Your task to perform on an android device: Go to Wikipedia Image 0: 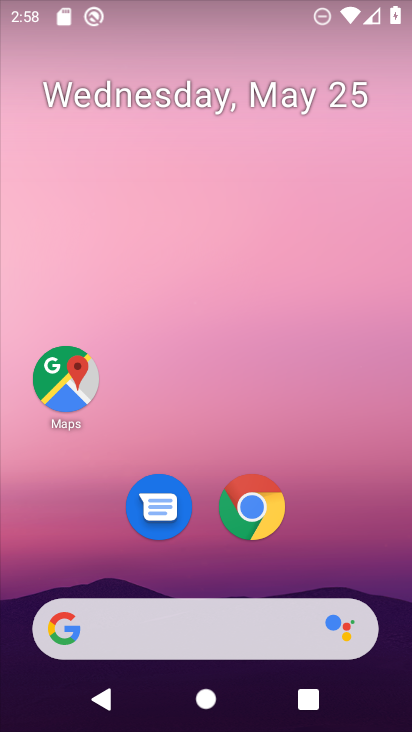
Step 0: click (264, 522)
Your task to perform on an android device: Go to Wikipedia Image 1: 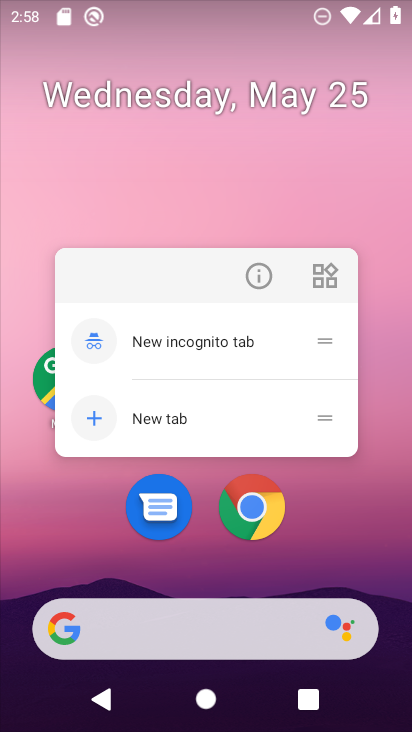
Step 1: click (251, 507)
Your task to perform on an android device: Go to Wikipedia Image 2: 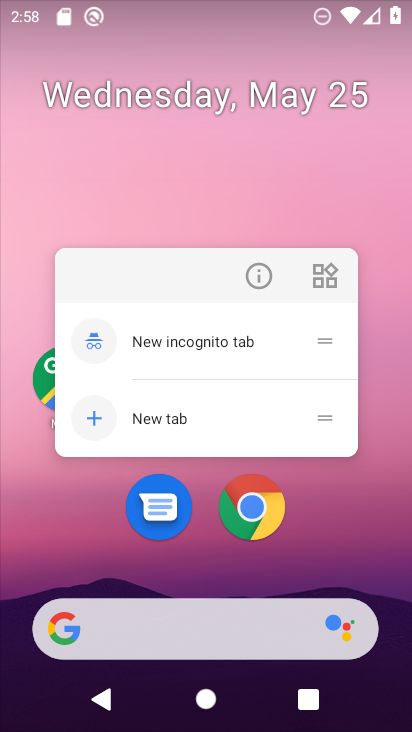
Step 2: click (251, 507)
Your task to perform on an android device: Go to Wikipedia Image 3: 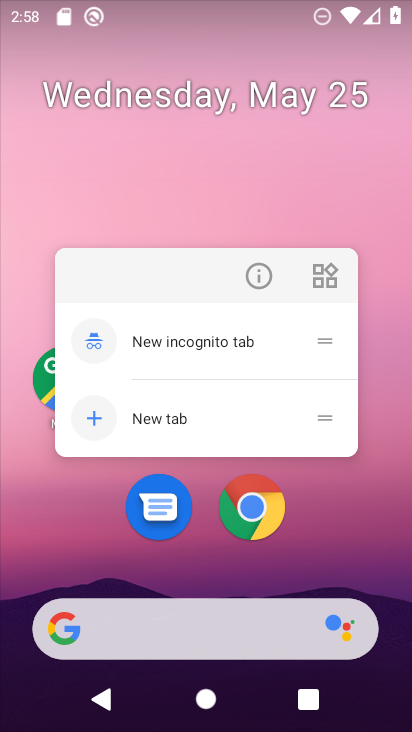
Step 3: click (243, 491)
Your task to perform on an android device: Go to Wikipedia Image 4: 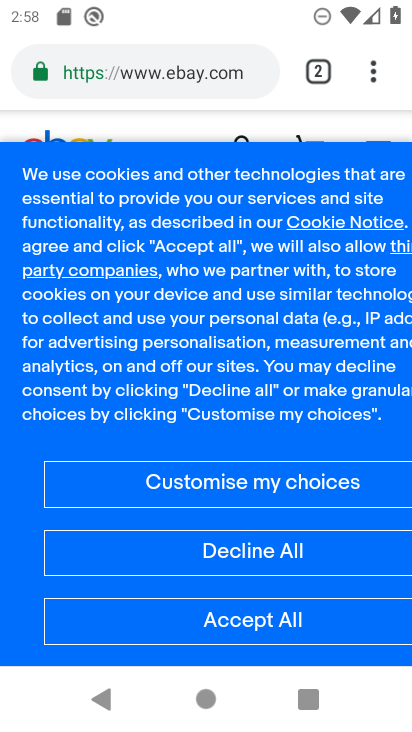
Step 4: click (227, 78)
Your task to perform on an android device: Go to Wikipedia Image 5: 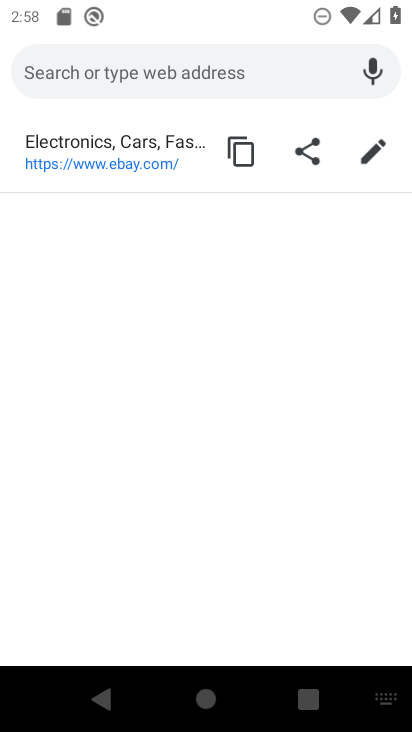
Step 5: type "wikipedia"
Your task to perform on an android device: Go to Wikipedia Image 6: 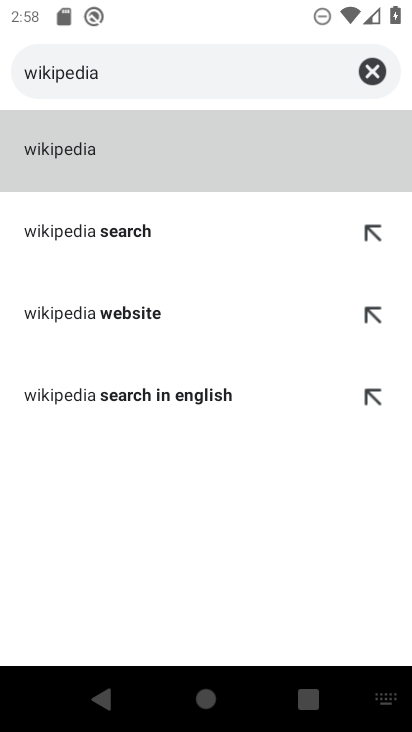
Step 6: click (223, 155)
Your task to perform on an android device: Go to Wikipedia Image 7: 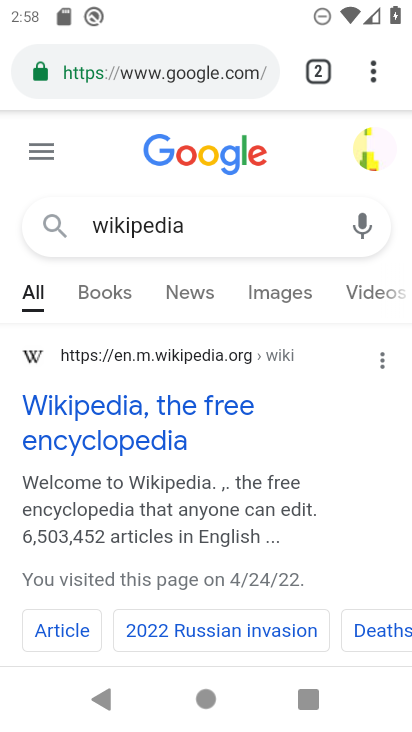
Step 7: click (148, 422)
Your task to perform on an android device: Go to Wikipedia Image 8: 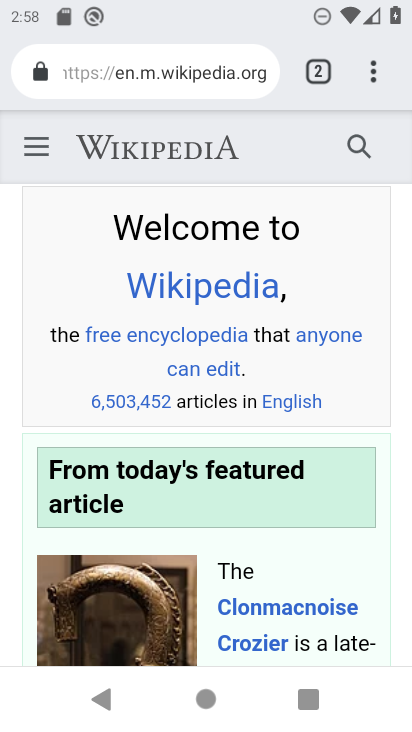
Step 8: task complete